Your task to perform on an android device: turn off priority inbox in the gmail app Image 0: 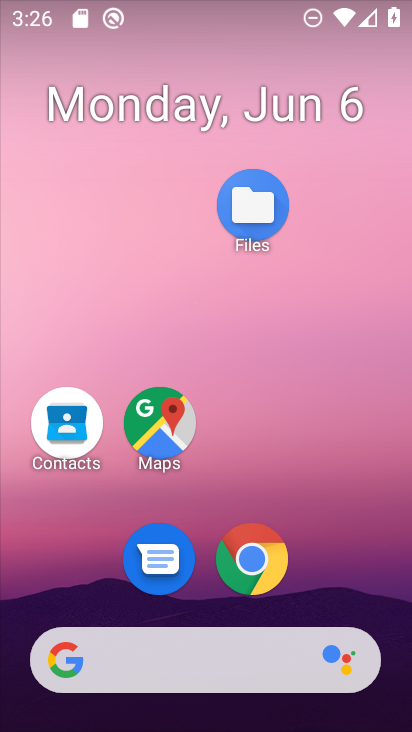
Step 0: drag from (189, 638) to (165, 78)
Your task to perform on an android device: turn off priority inbox in the gmail app Image 1: 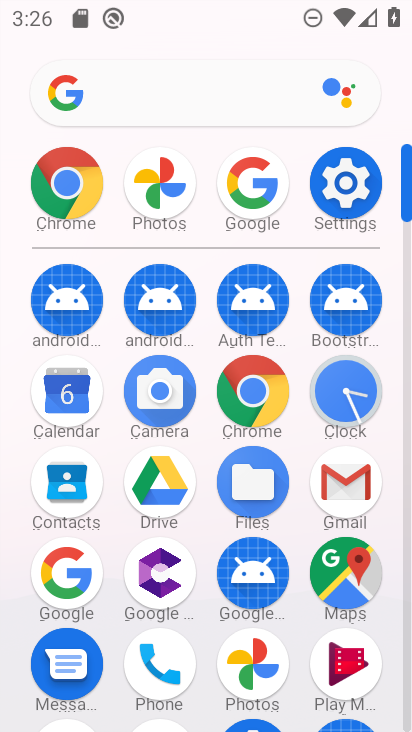
Step 1: click (345, 511)
Your task to perform on an android device: turn off priority inbox in the gmail app Image 2: 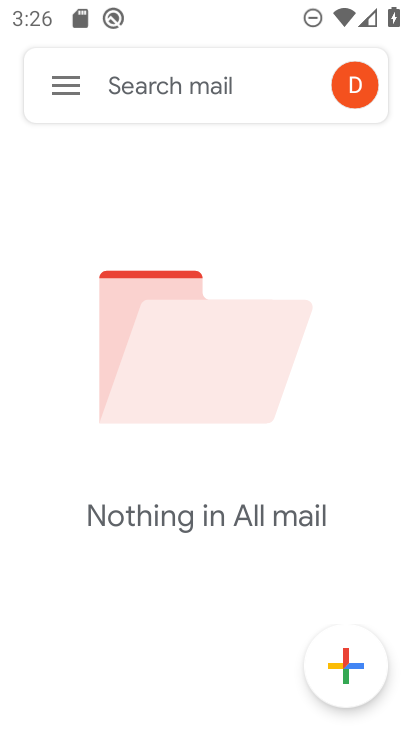
Step 2: click (59, 88)
Your task to perform on an android device: turn off priority inbox in the gmail app Image 3: 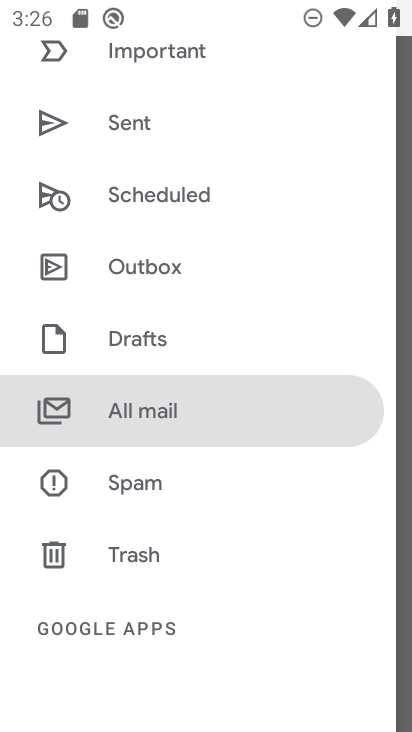
Step 3: drag from (171, 545) to (169, 119)
Your task to perform on an android device: turn off priority inbox in the gmail app Image 4: 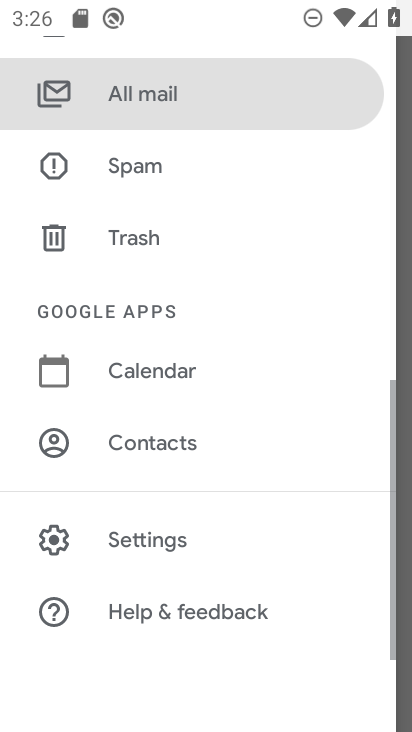
Step 4: click (158, 531)
Your task to perform on an android device: turn off priority inbox in the gmail app Image 5: 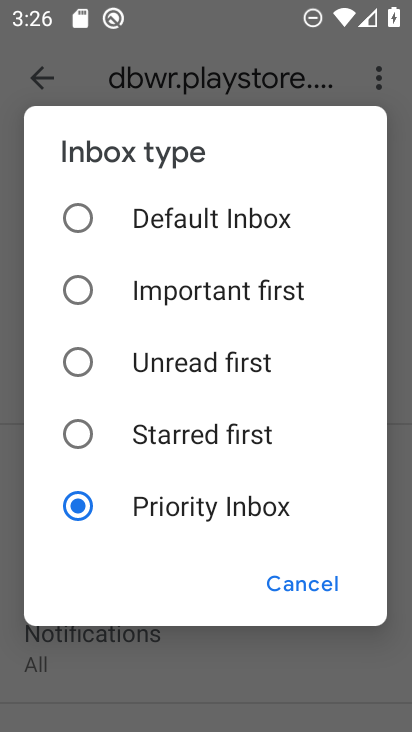
Step 5: click (130, 427)
Your task to perform on an android device: turn off priority inbox in the gmail app Image 6: 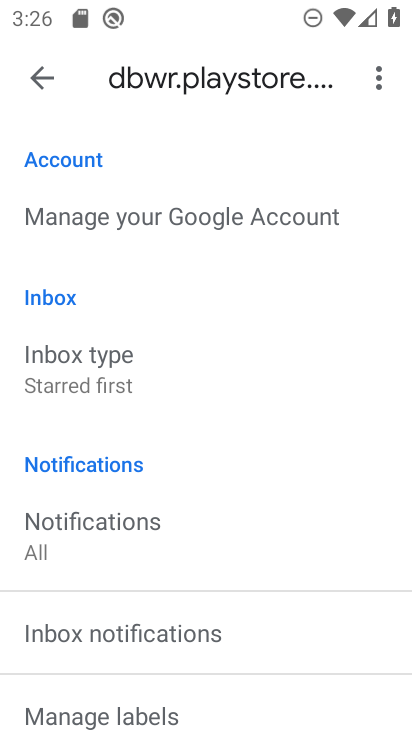
Step 6: task complete